Your task to perform on an android device: open app "Reddit" (install if not already installed), go to login, and select forgot password Image 0: 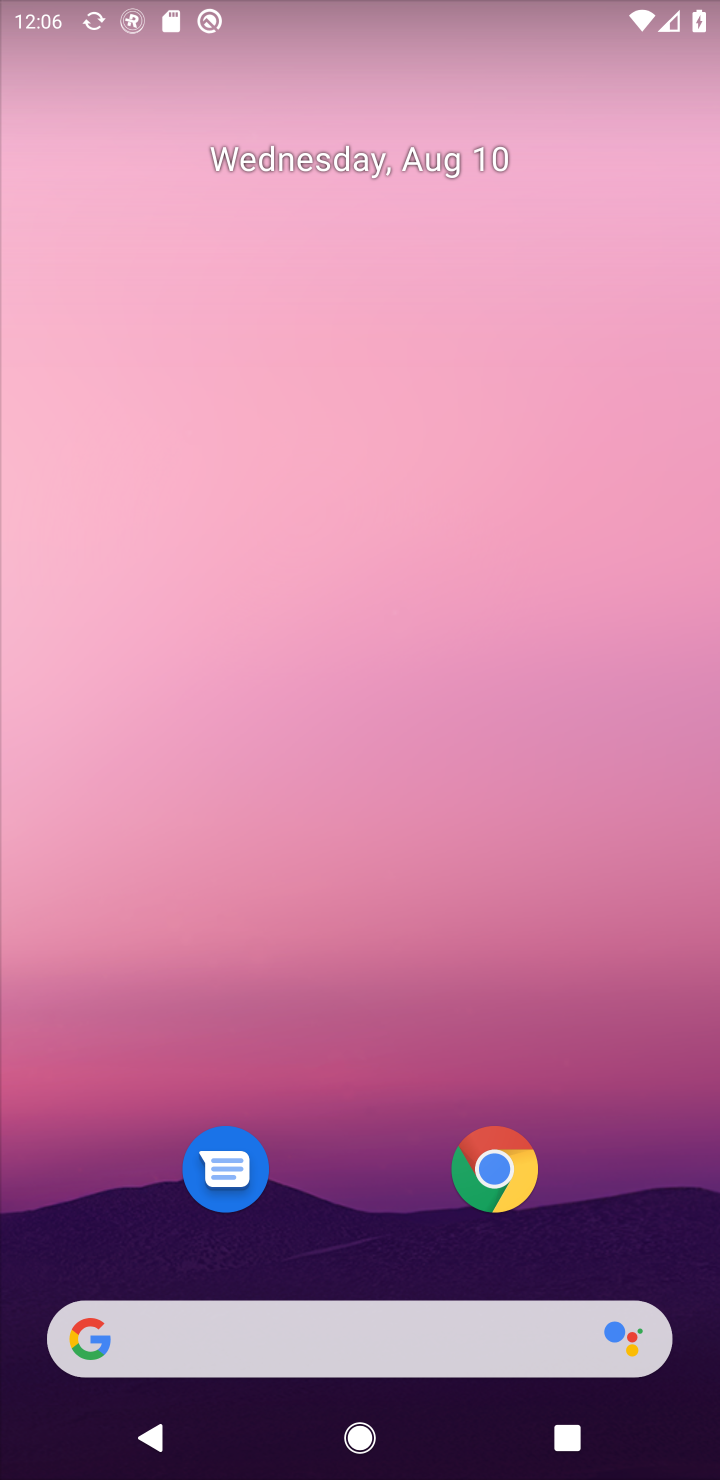
Step 0: press home button
Your task to perform on an android device: open app "Reddit" (install if not already installed), go to login, and select forgot password Image 1: 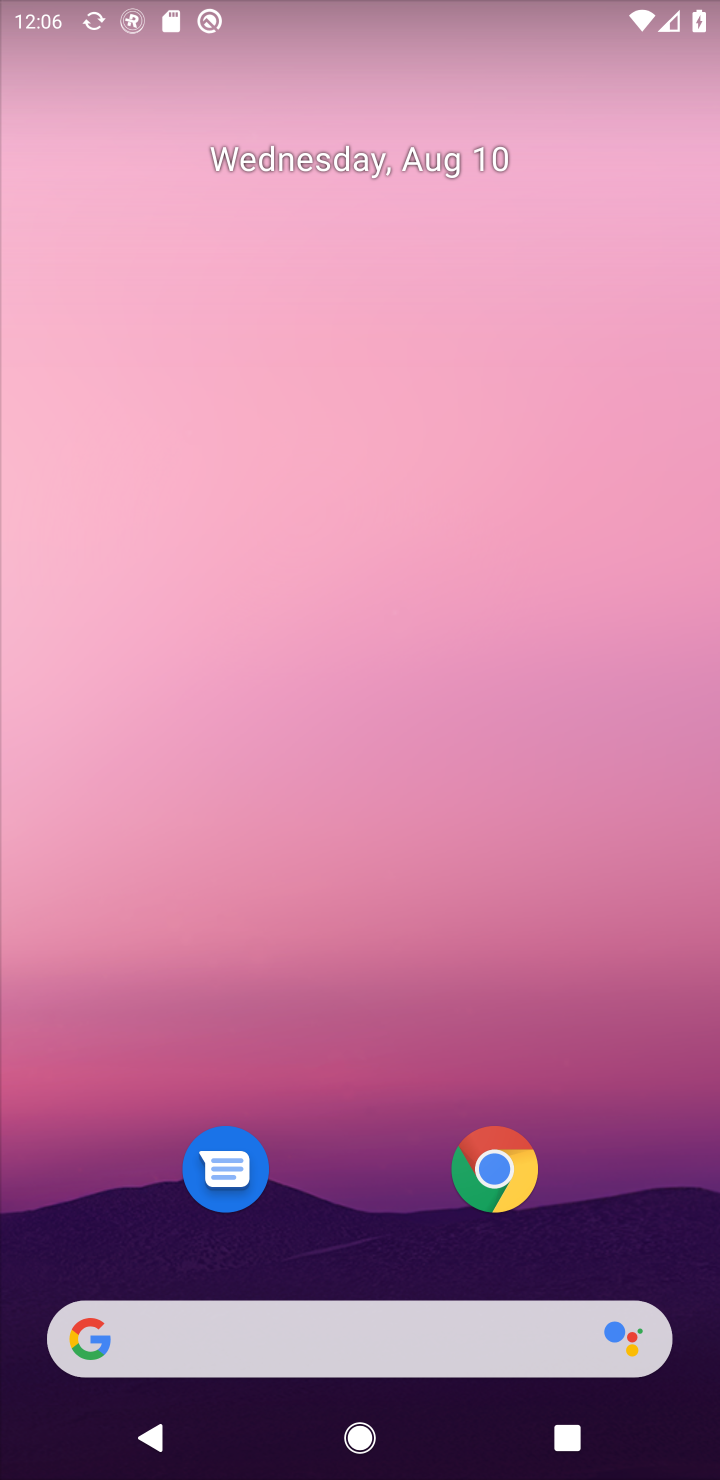
Step 1: drag from (610, 1228) to (595, 109)
Your task to perform on an android device: open app "Reddit" (install if not already installed), go to login, and select forgot password Image 2: 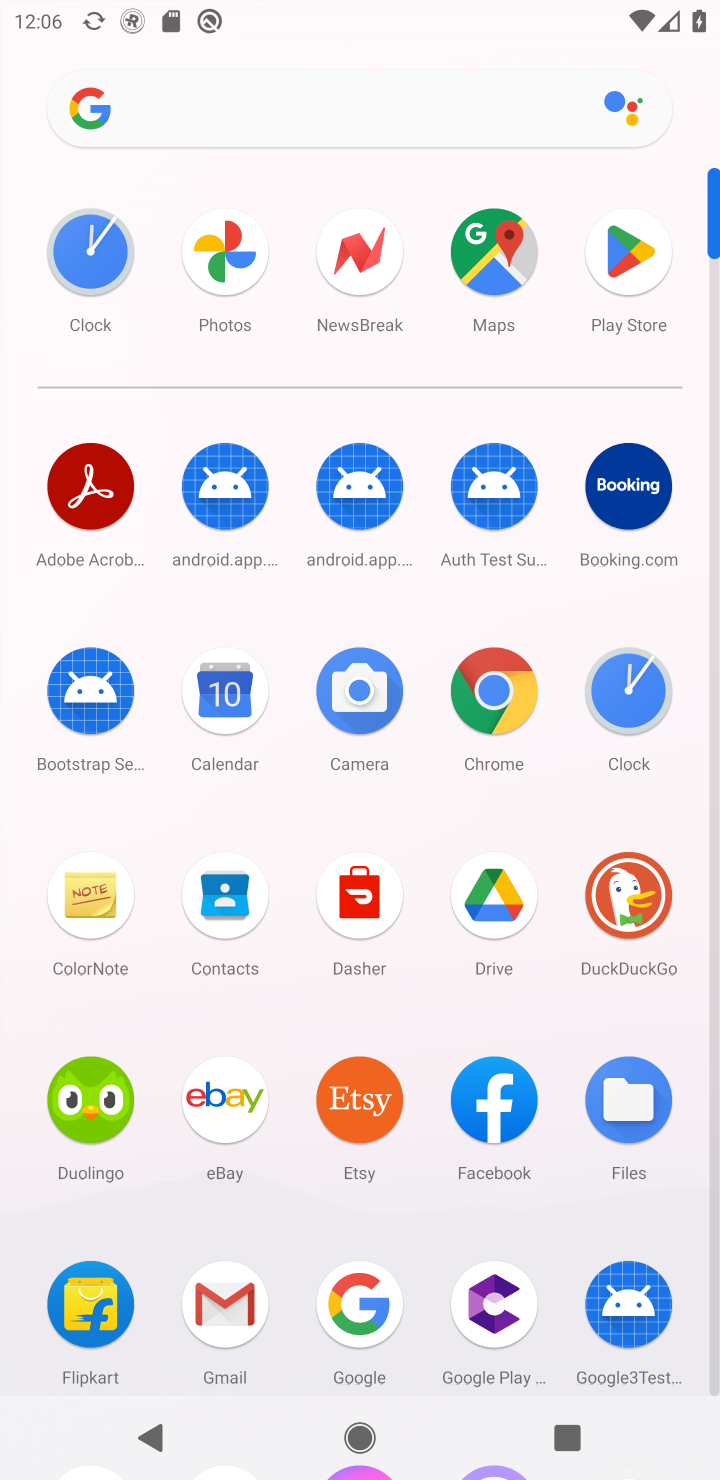
Step 2: click (624, 238)
Your task to perform on an android device: open app "Reddit" (install if not already installed), go to login, and select forgot password Image 3: 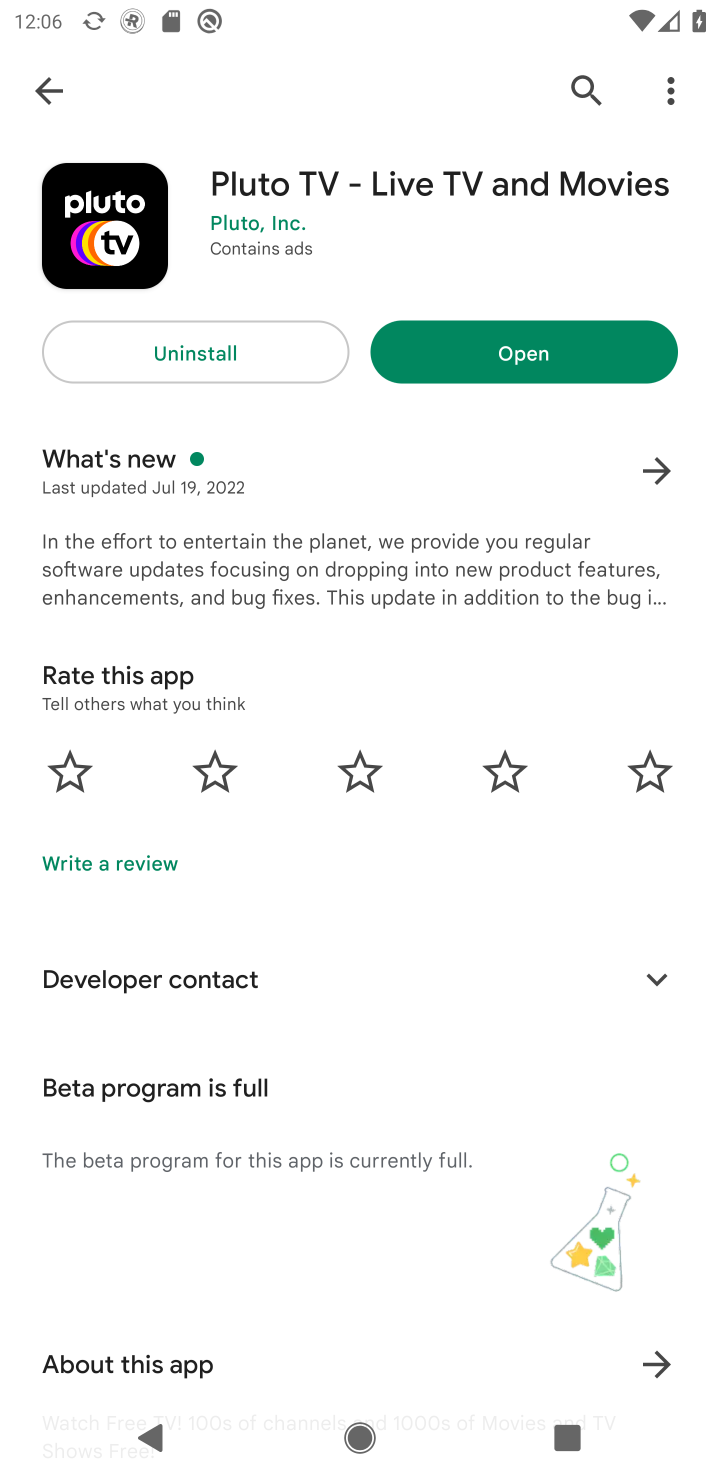
Step 3: click (579, 83)
Your task to perform on an android device: open app "Reddit" (install if not already installed), go to login, and select forgot password Image 4: 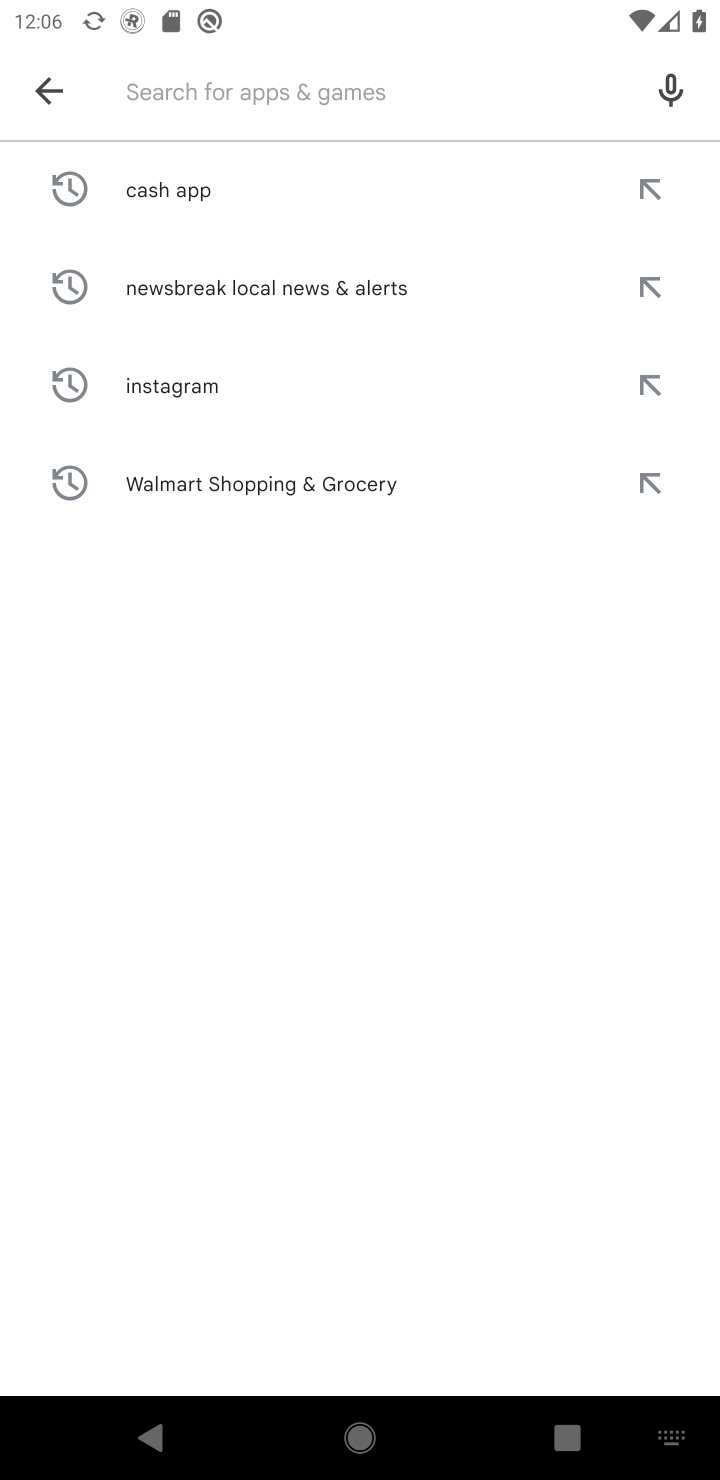
Step 4: press enter
Your task to perform on an android device: open app "Reddit" (install if not already installed), go to login, and select forgot password Image 5: 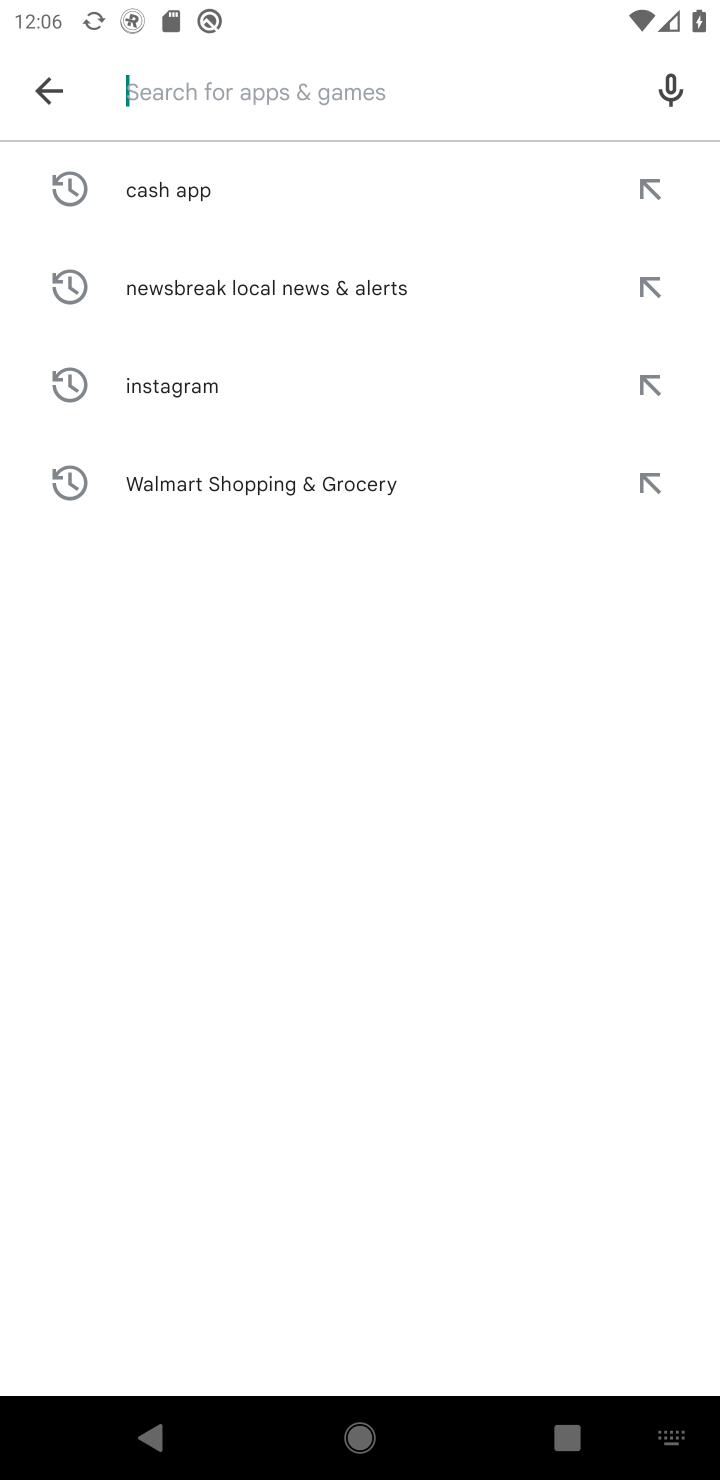
Step 5: type "reddit"
Your task to perform on an android device: open app "Reddit" (install if not already installed), go to login, and select forgot password Image 6: 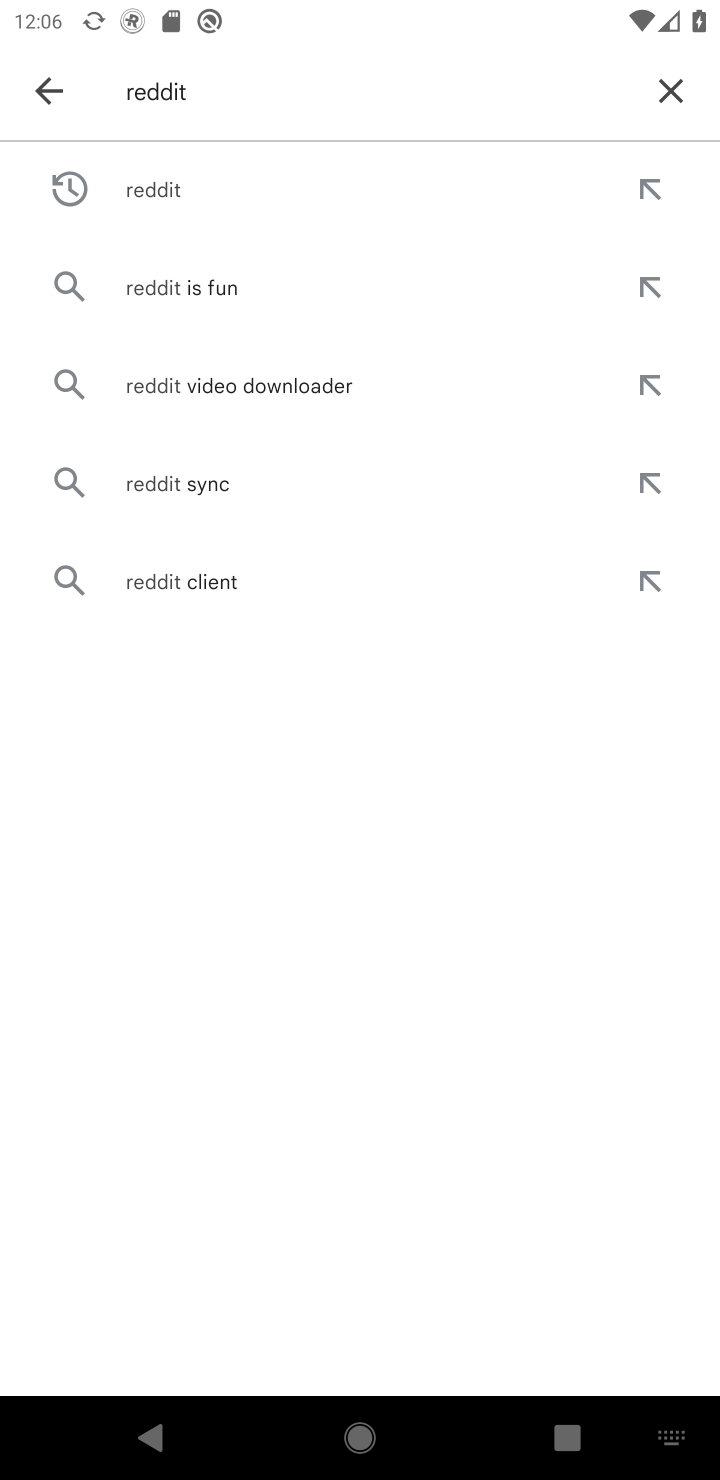
Step 6: click (210, 184)
Your task to perform on an android device: open app "Reddit" (install if not already installed), go to login, and select forgot password Image 7: 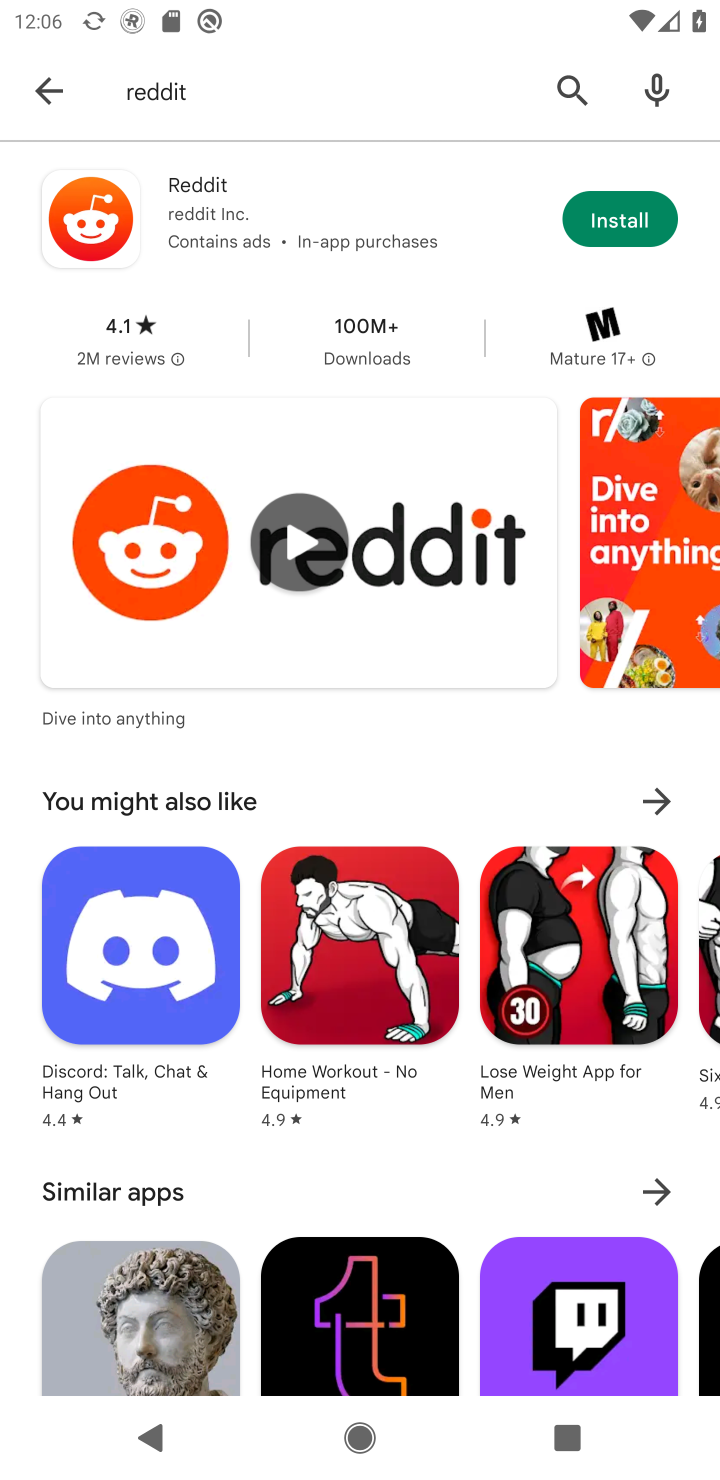
Step 7: click (621, 219)
Your task to perform on an android device: open app "Reddit" (install if not already installed), go to login, and select forgot password Image 8: 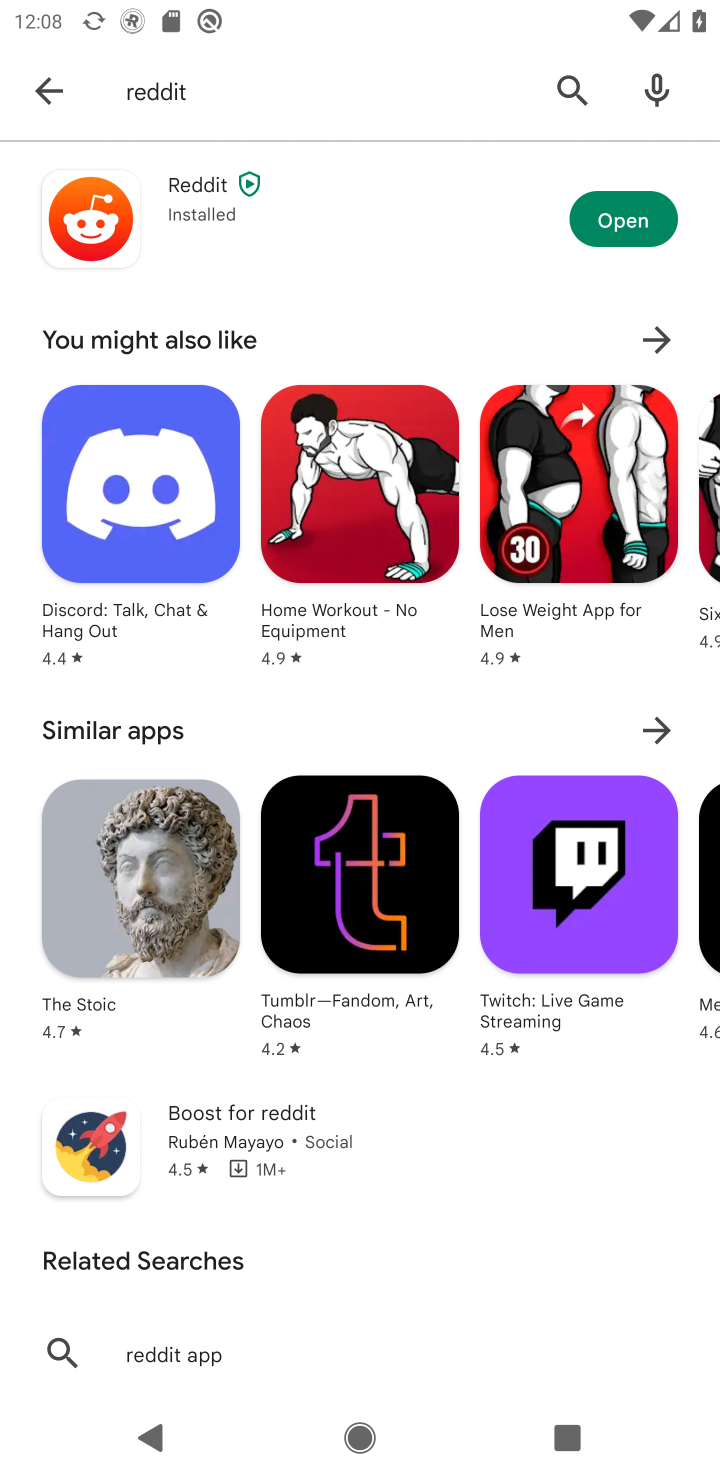
Step 8: click (649, 233)
Your task to perform on an android device: open app "Reddit" (install if not already installed), go to login, and select forgot password Image 9: 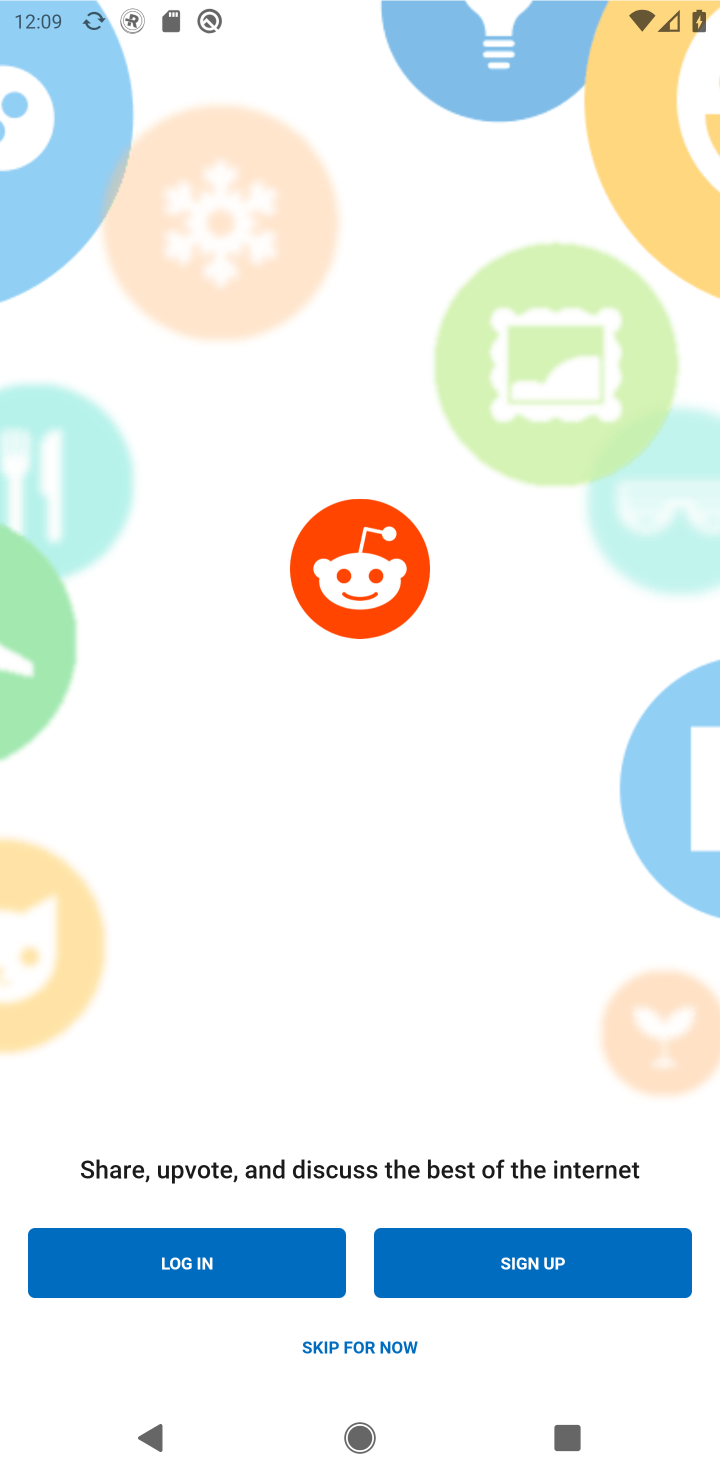
Step 9: click (236, 1269)
Your task to perform on an android device: open app "Reddit" (install if not already installed), go to login, and select forgot password Image 10: 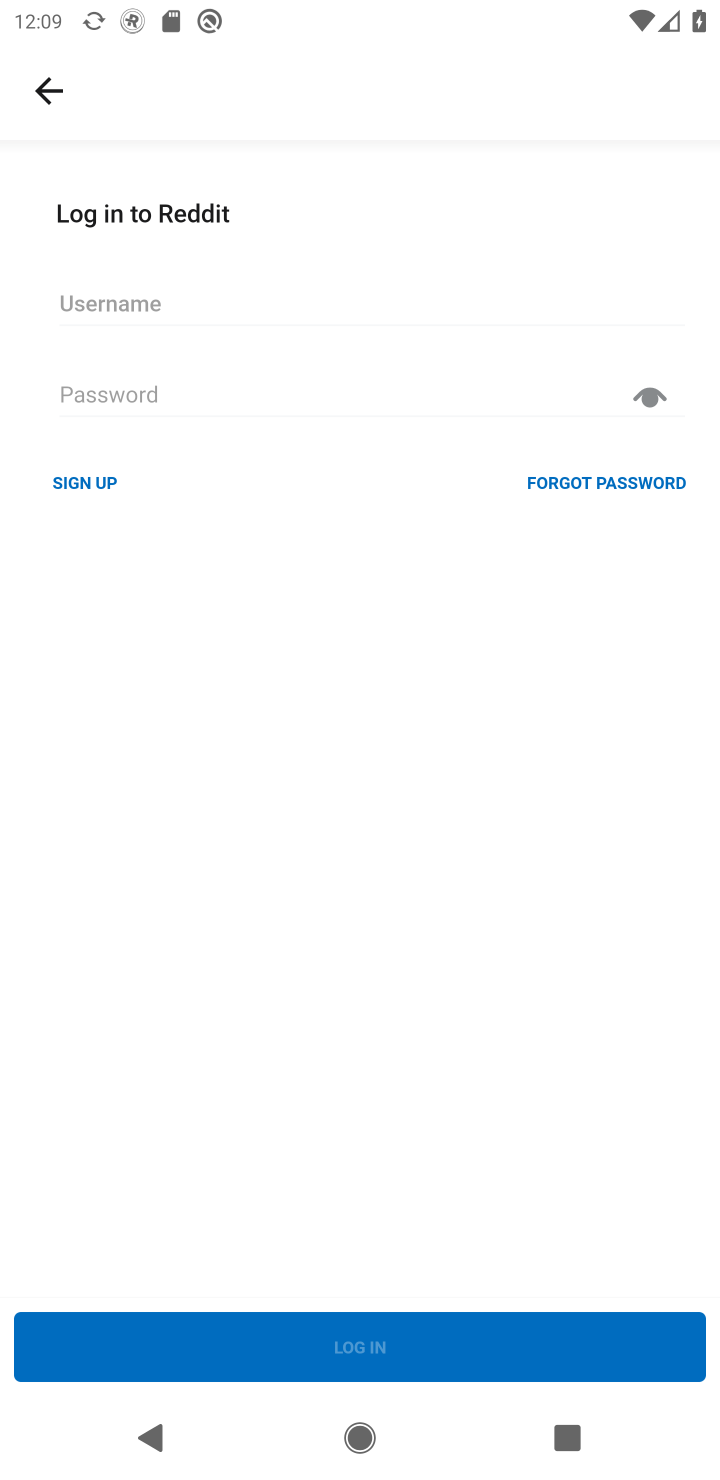
Step 10: click (594, 484)
Your task to perform on an android device: open app "Reddit" (install if not already installed), go to login, and select forgot password Image 11: 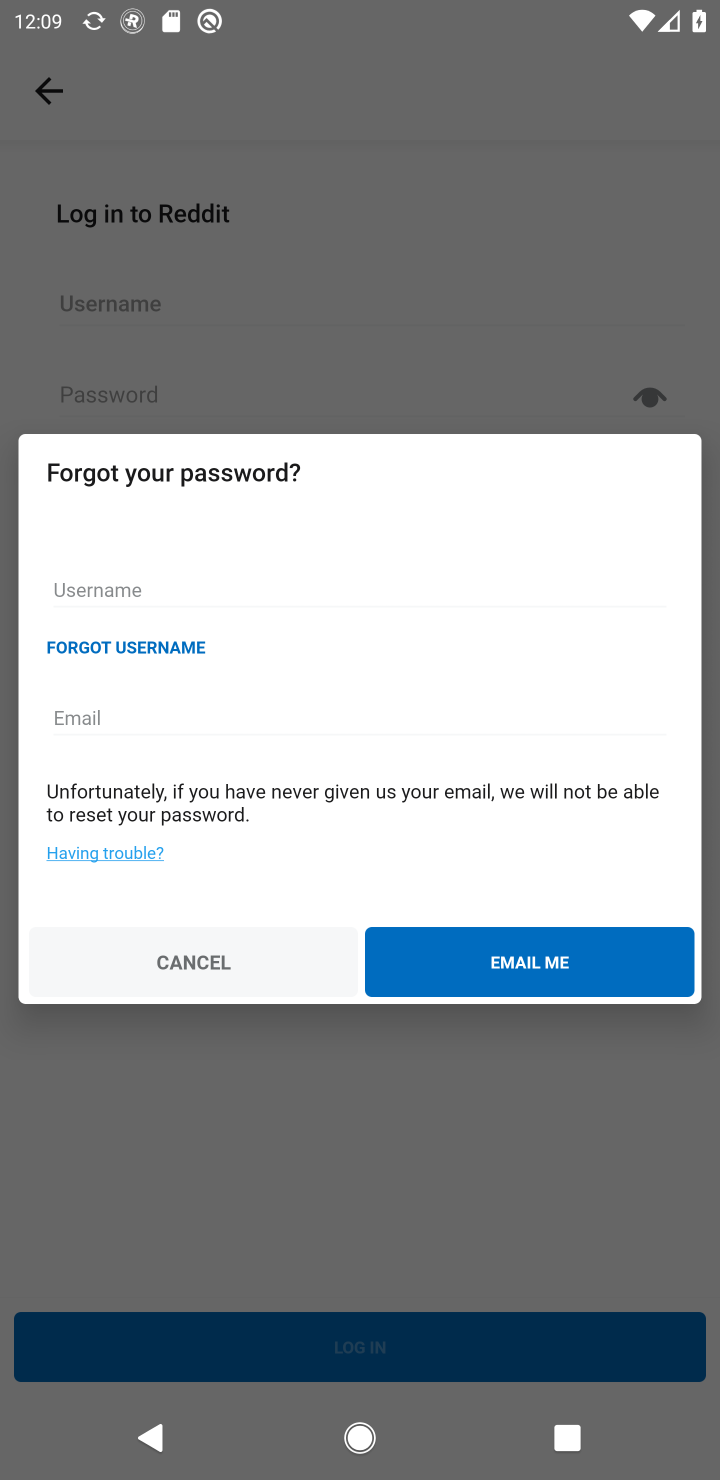
Step 11: task complete